Your task to perform on an android device: toggle show notifications on the lock screen Image 0: 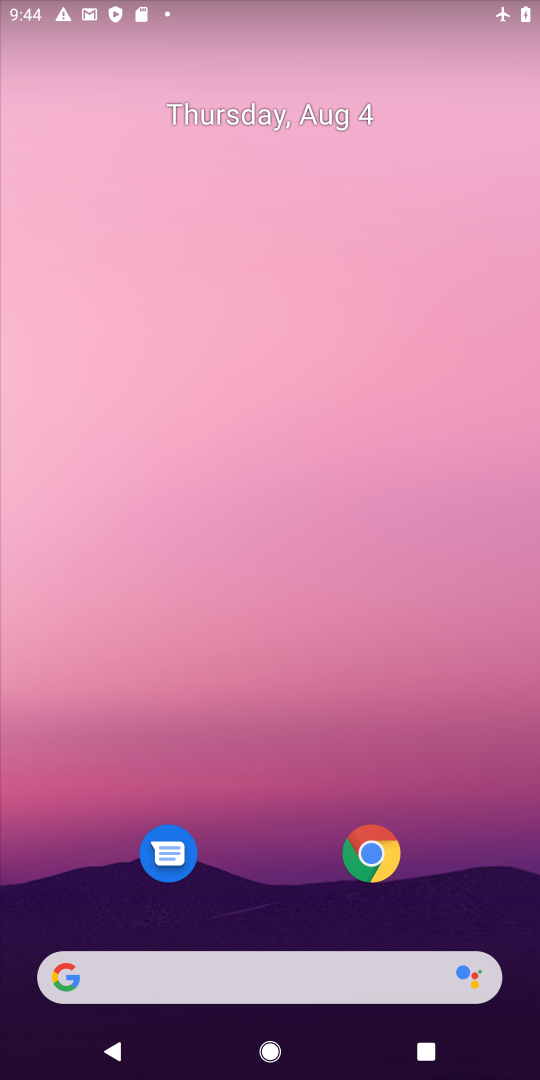
Step 0: drag from (238, 885) to (288, 193)
Your task to perform on an android device: toggle show notifications on the lock screen Image 1: 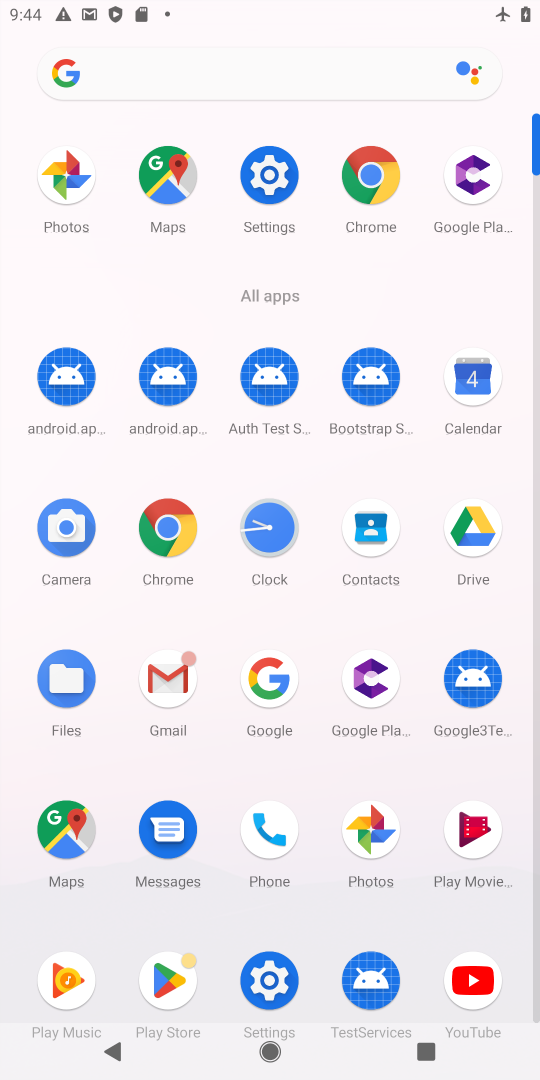
Step 1: click (272, 198)
Your task to perform on an android device: toggle show notifications on the lock screen Image 2: 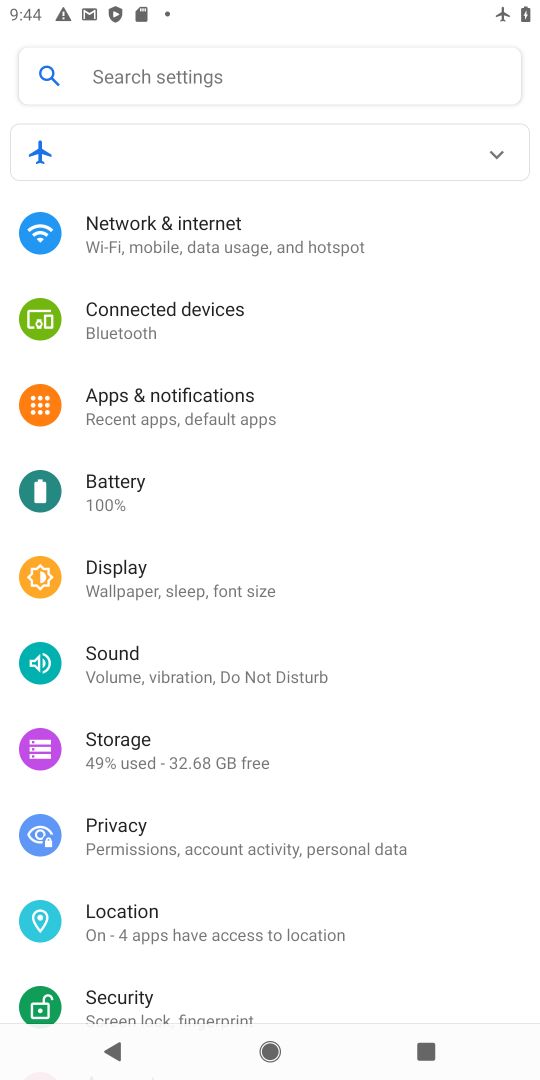
Step 2: click (218, 411)
Your task to perform on an android device: toggle show notifications on the lock screen Image 3: 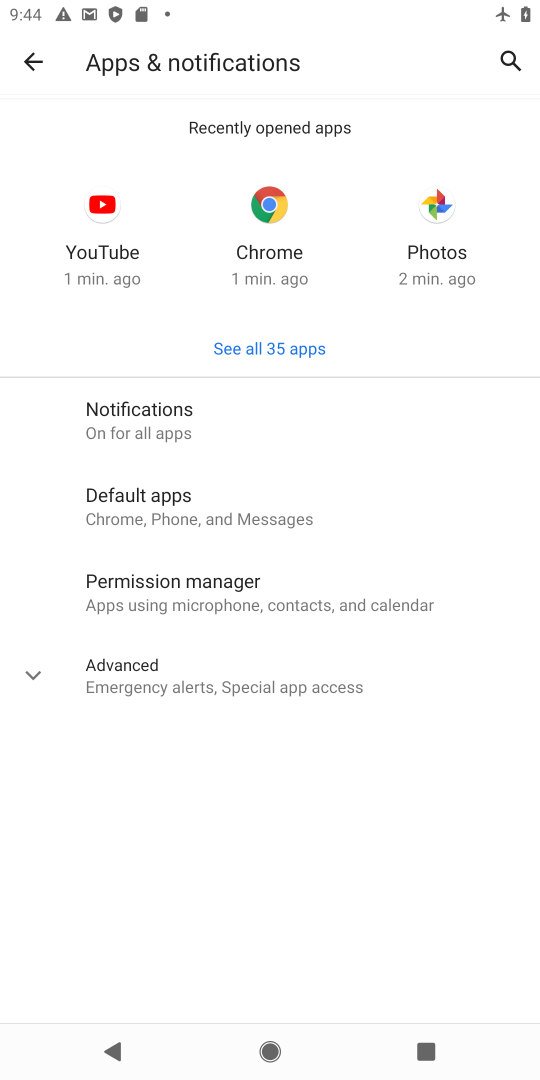
Step 3: click (151, 423)
Your task to perform on an android device: toggle show notifications on the lock screen Image 4: 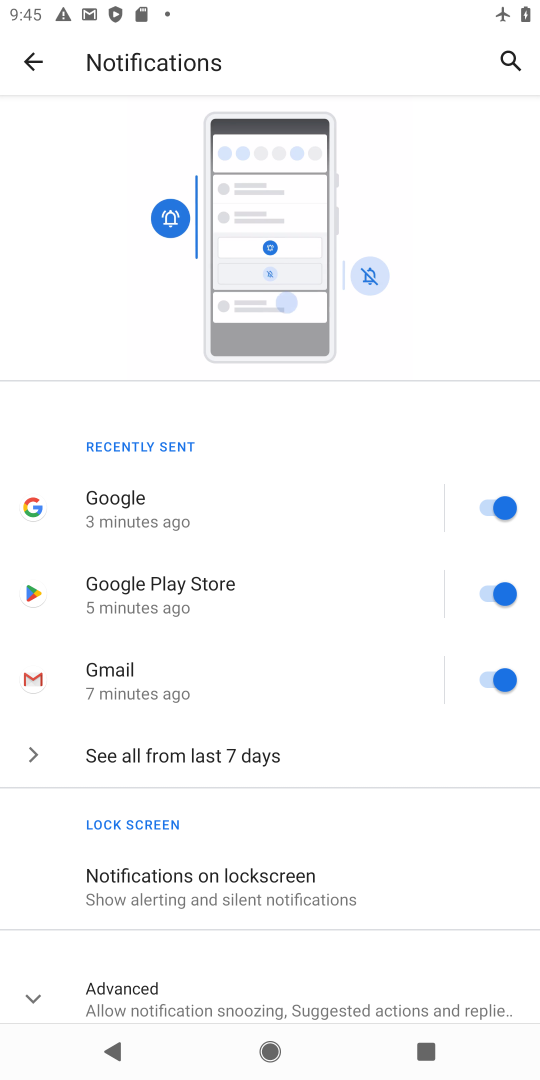
Step 4: drag from (161, 837) to (169, 585)
Your task to perform on an android device: toggle show notifications on the lock screen Image 5: 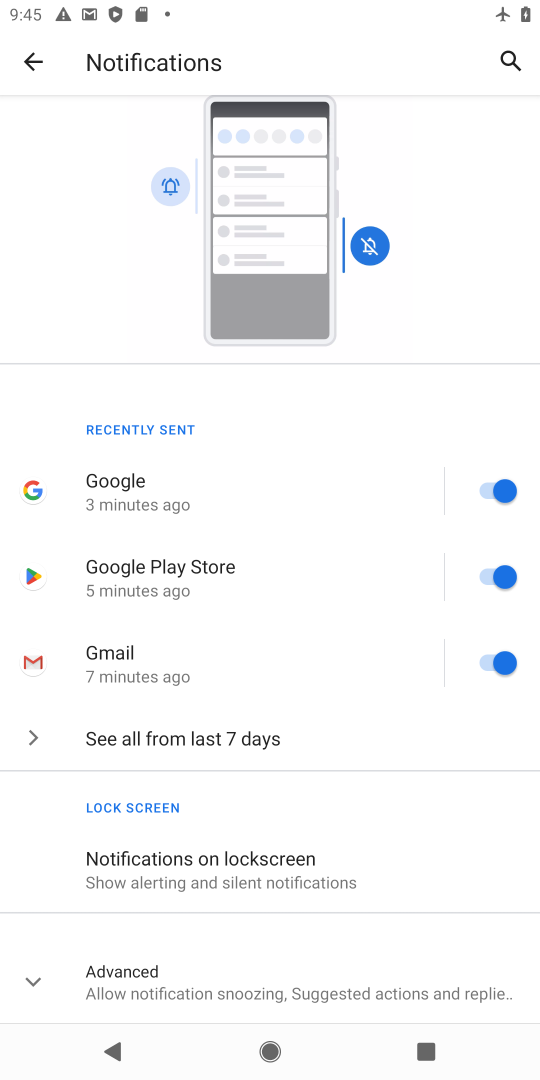
Step 5: click (127, 882)
Your task to perform on an android device: toggle show notifications on the lock screen Image 6: 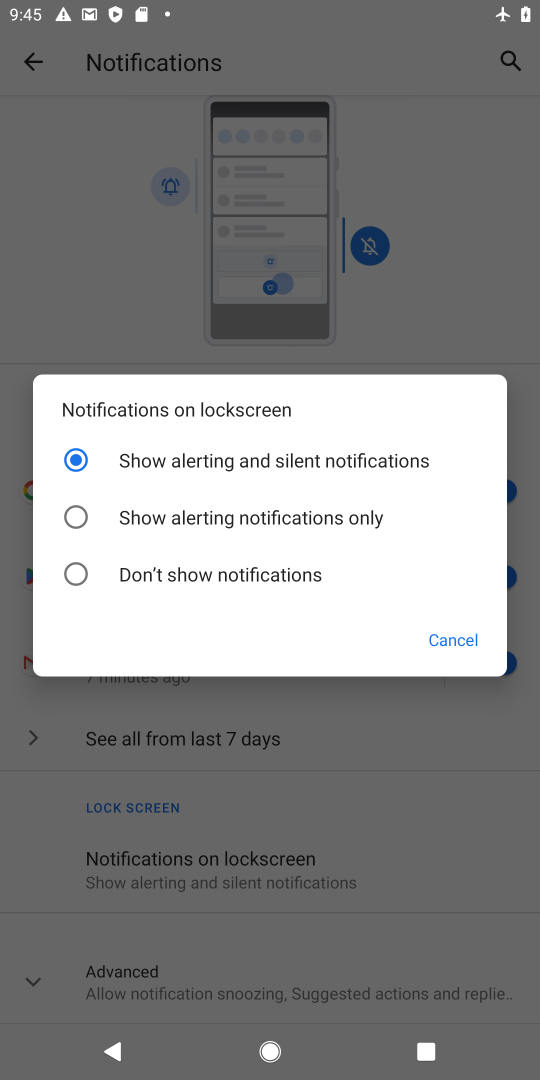
Step 6: click (79, 574)
Your task to perform on an android device: toggle show notifications on the lock screen Image 7: 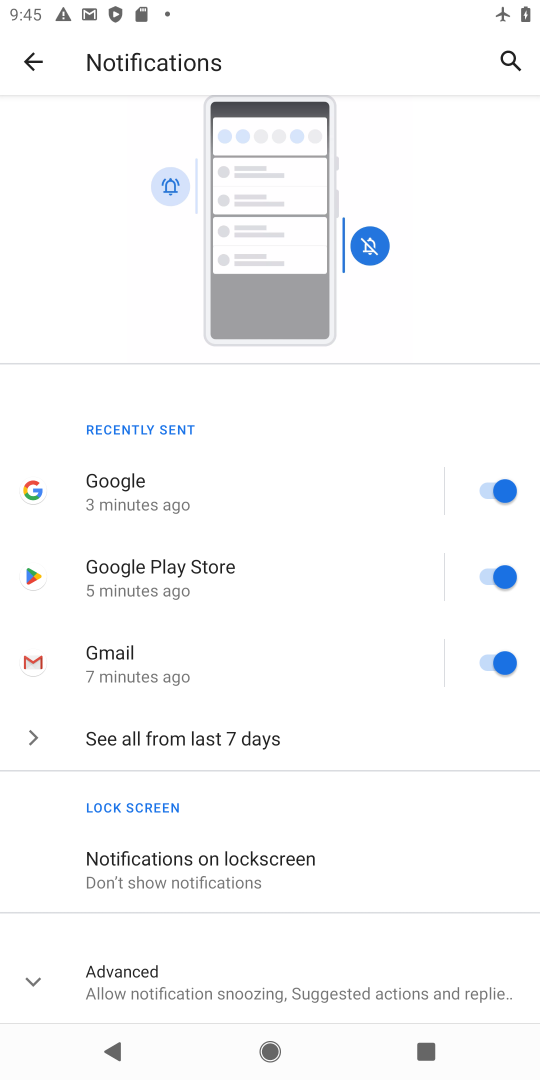
Step 7: task complete